Your task to perform on an android device: open a bookmark in the chrome app Image 0: 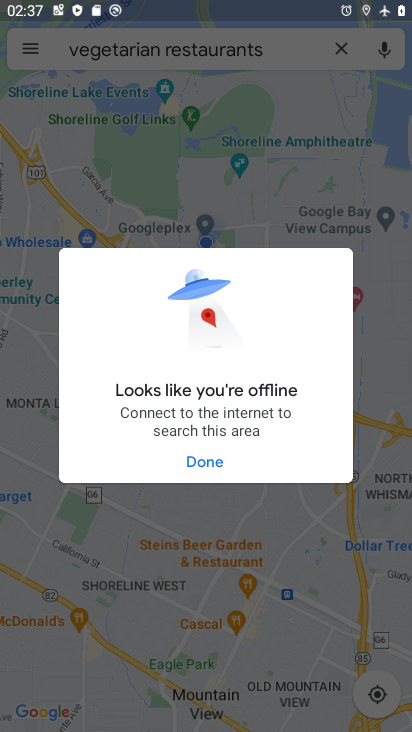
Step 0: press home button
Your task to perform on an android device: open a bookmark in the chrome app Image 1: 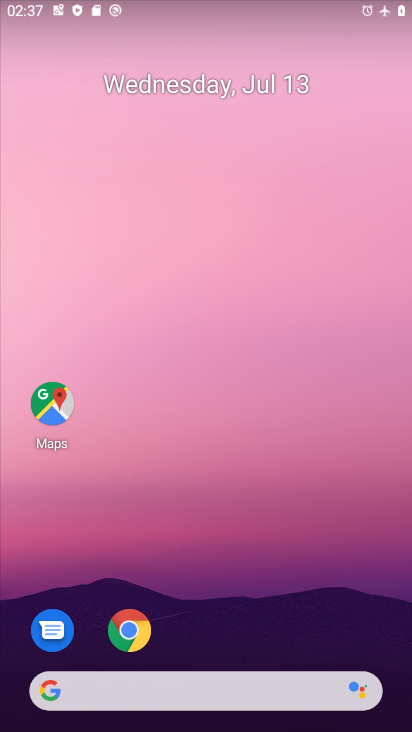
Step 1: click (131, 630)
Your task to perform on an android device: open a bookmark in the chrome app Image 2: 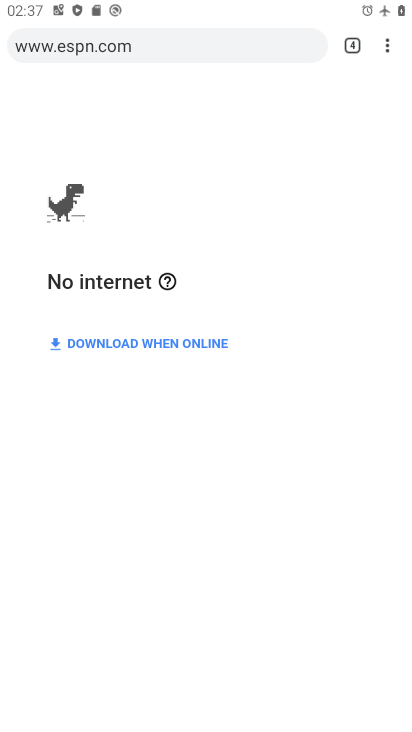
Step 2: click (391, 38)
Your task to perform on an android device: open a bookmark in the chrome app Image 3: 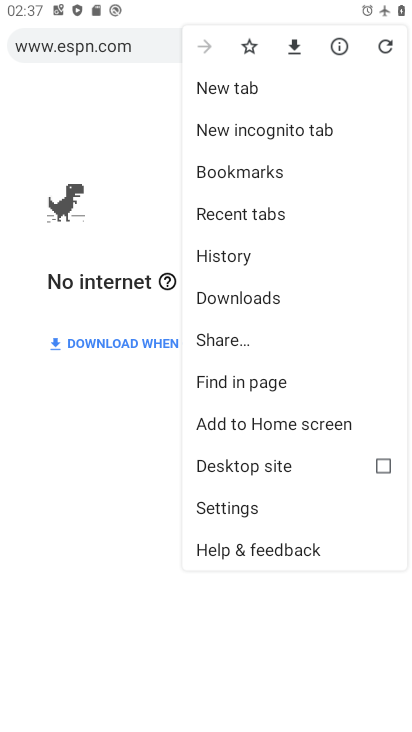
Step 3: click (250, 180)
Your task to perform on an android device: open a bookmark in the chrome app Image 4: 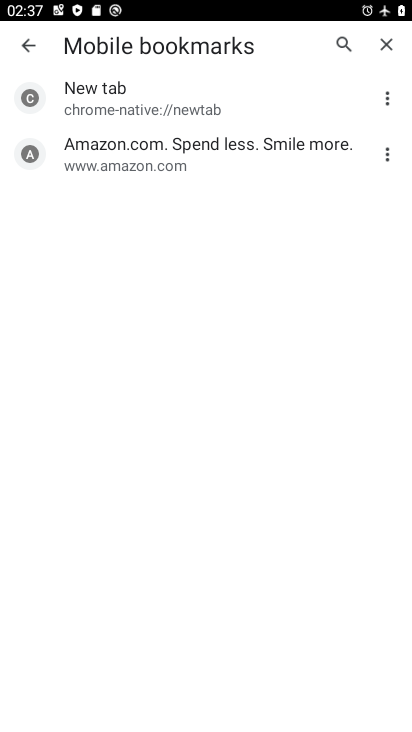
Step 4: click (169, 149)
Your task to perform on an android device: open a bookmark in the chrome app Image 5: 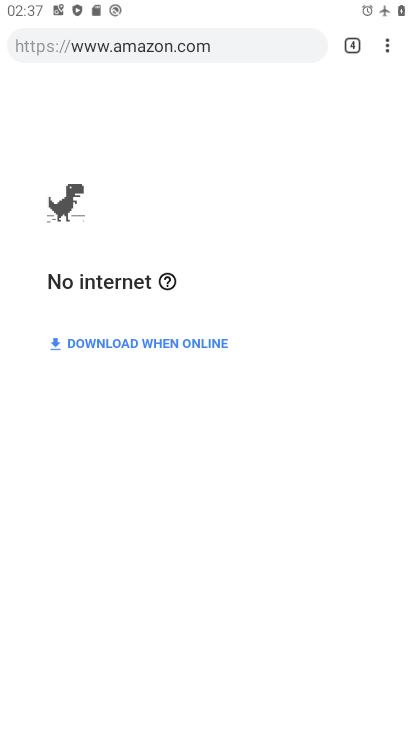
Step 5: task complete